Your task to perform on an android device: turn off sleep mode Image 0: 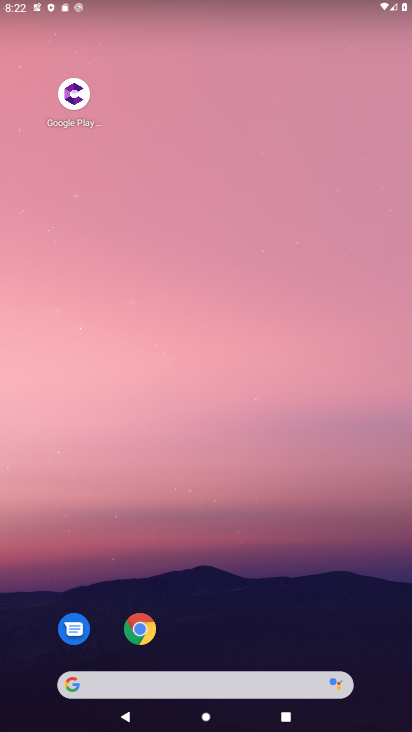
Step 0: drag from (238, 728) to (225, 107)
Your task to perform on an android device: turn off sleep mode Image 1: 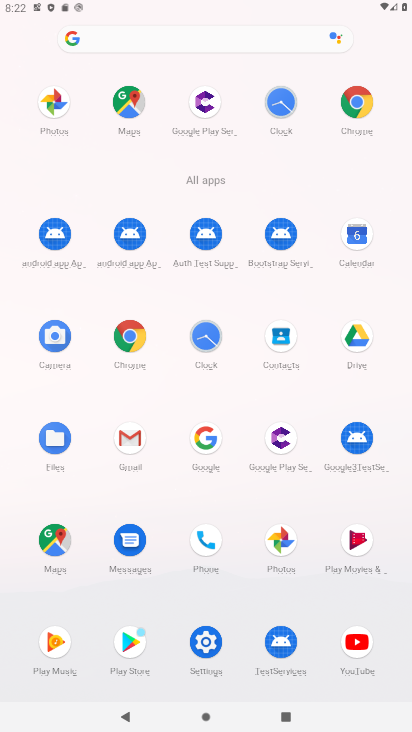
Step 1: click (280, 103)
Your task to perform on an android device: turn off sleep mode Image 2: 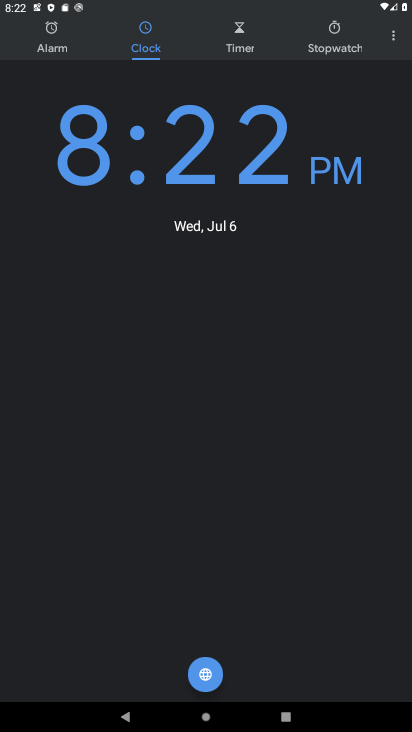
Step 2: press back button
Your task to perform on an android device: turn off sleep mode Image 3: 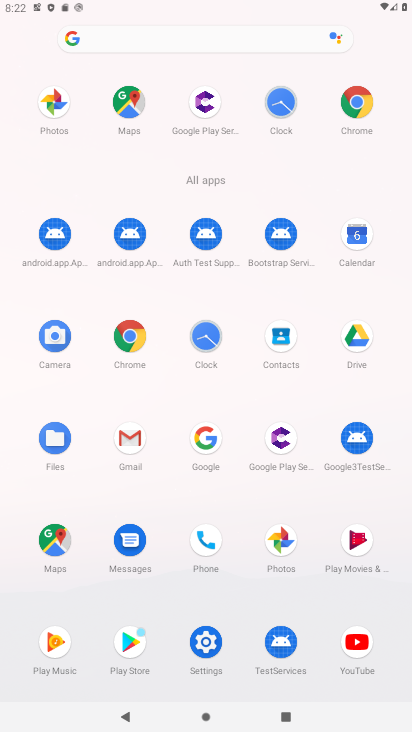
Step 3: click (208, 638)
Your task to perform on an android device: turn off sleep mode Image 4: 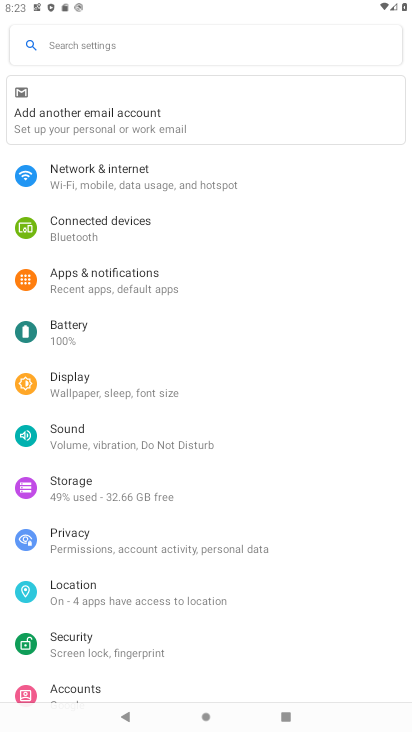
Step 4: drag from (131, 658) to (118, 527)
Your task to perform on an android device: turn off sleep mode Image 5: 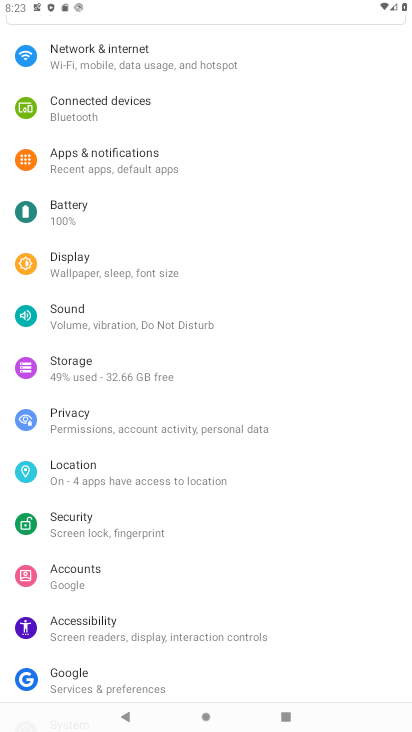
Step 5: click (124, 249)
Your task to perform on an android device: turn off sleep mode Image 6: 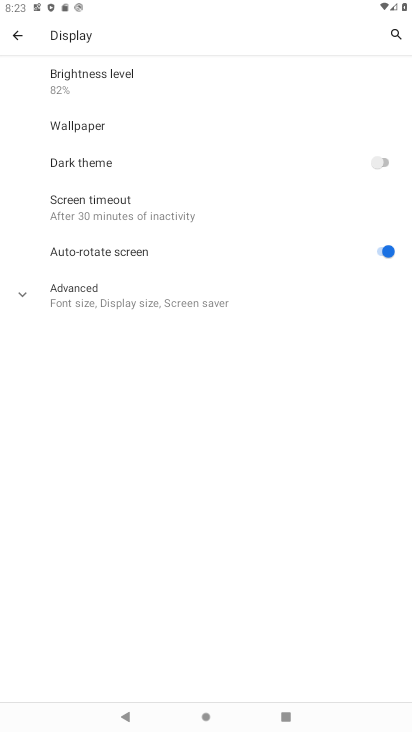
Step 6: click (26, 37)
Your task to perform on an android device: turn off sleep mode Image 7: 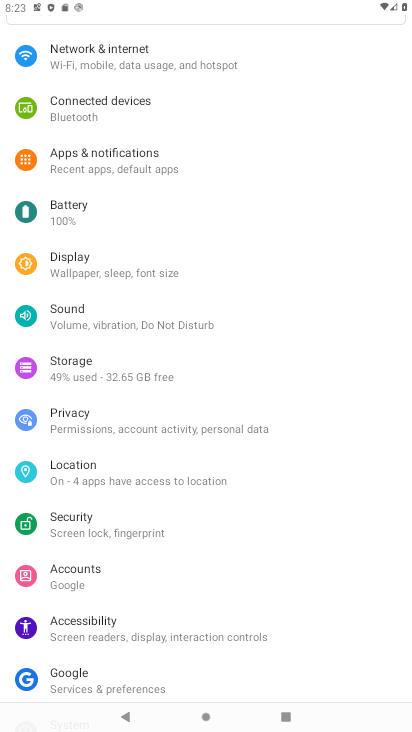
Step 7: task complete